Your task to perform on an android device: Open Google Maps Image 0: 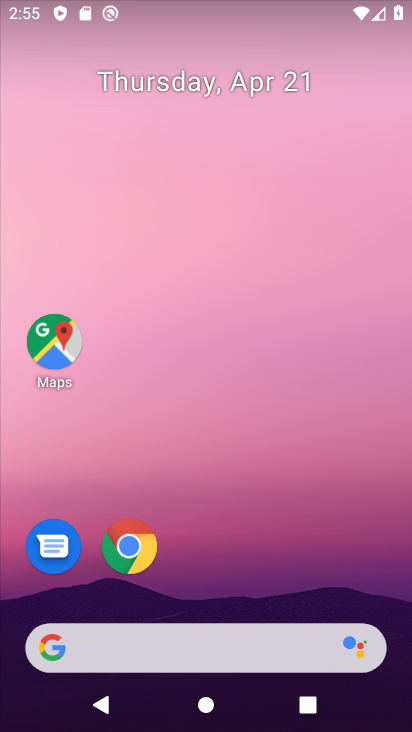
Step 0: click (80, 328)
Your task to perform on an android device: Open Google Maps Image 1: 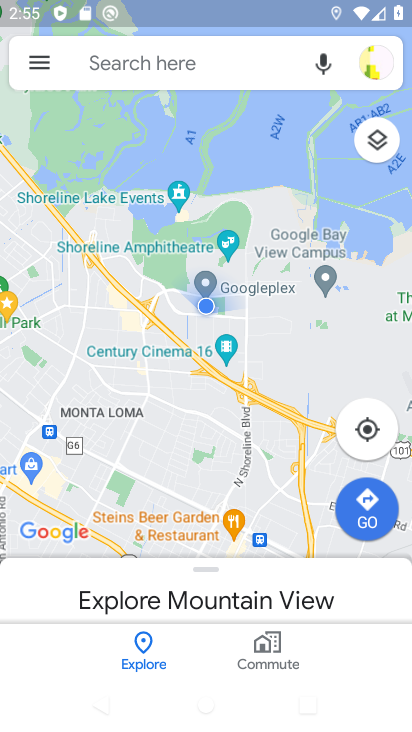
Step 1: task complete